Your task to perform on an android device: Turn on the flashlight Image 0: 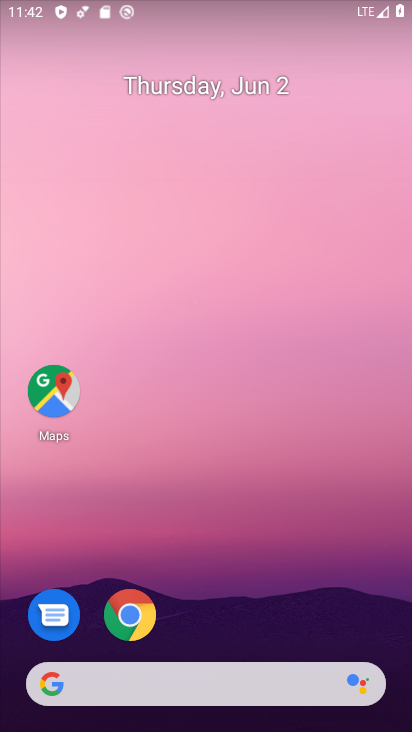
Step 0: drag from (231, 7) to (218, 620)
Your task to perform on an android device: Turn on the flashlight Image 1: 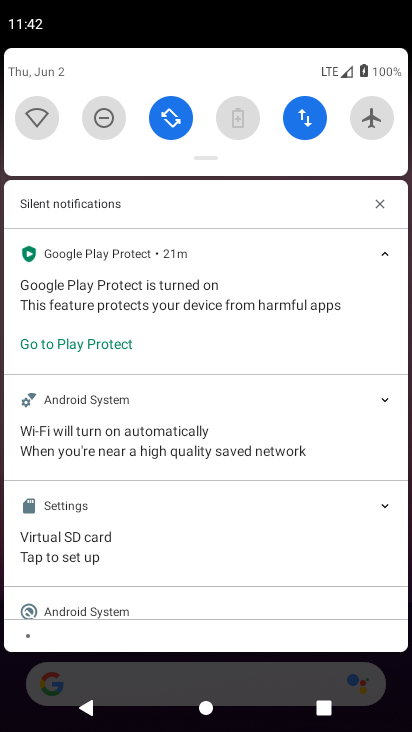
Step 1: task complete